Your task to perform on an android device: turn off location Image 0: 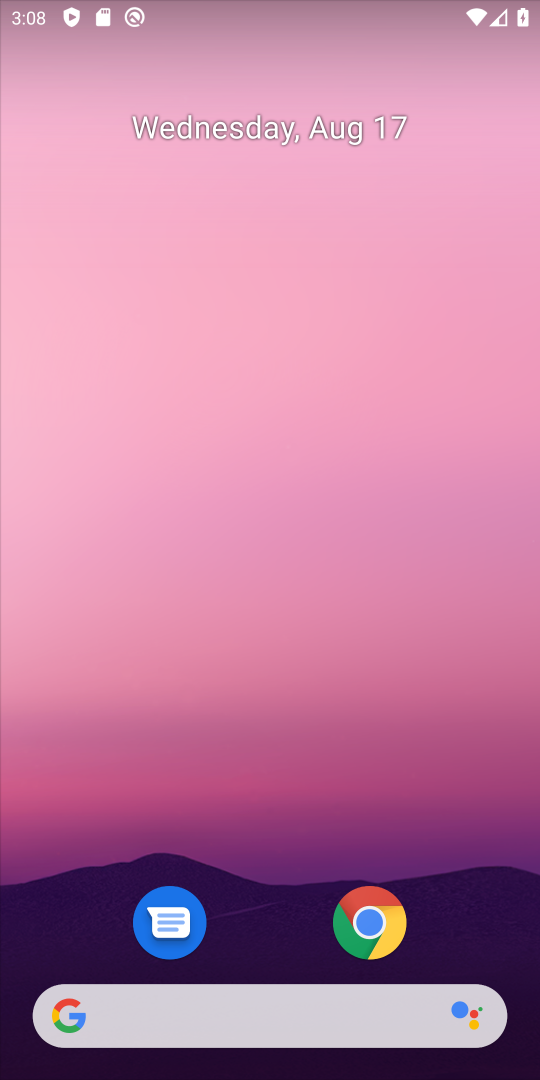
Step 0: drag from (0, 1057) to (340, 178)
Your task to perform on an android device: turn off location Image 1: 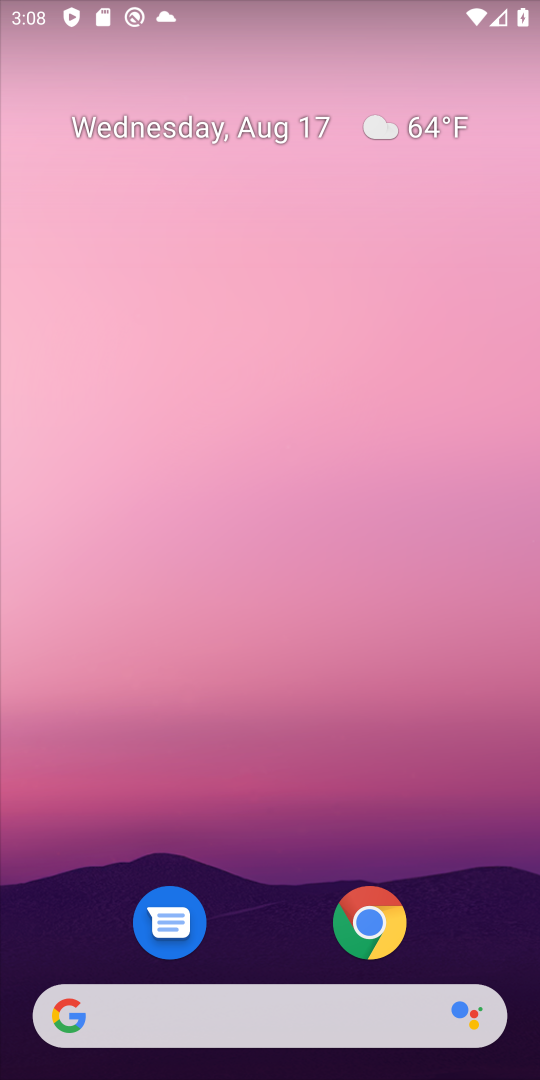
Step 1: drag from (72, 576) to (256, 133)
Your task to perform on an android device: turn off location Image 2: 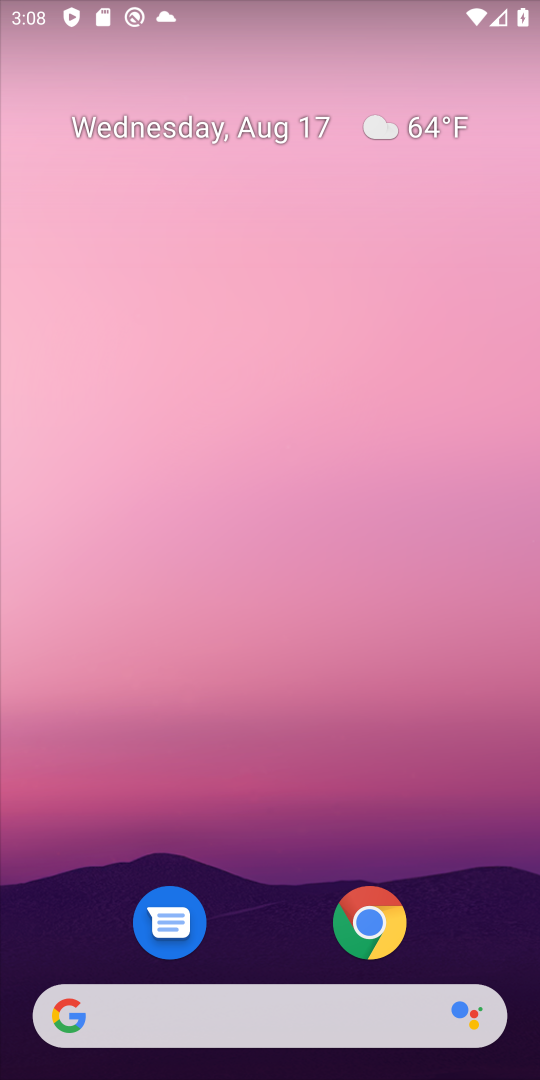
Step 2: drag from (80, 693) to (312, 129)
Your task to perform on an android device: turn off location Image 3: 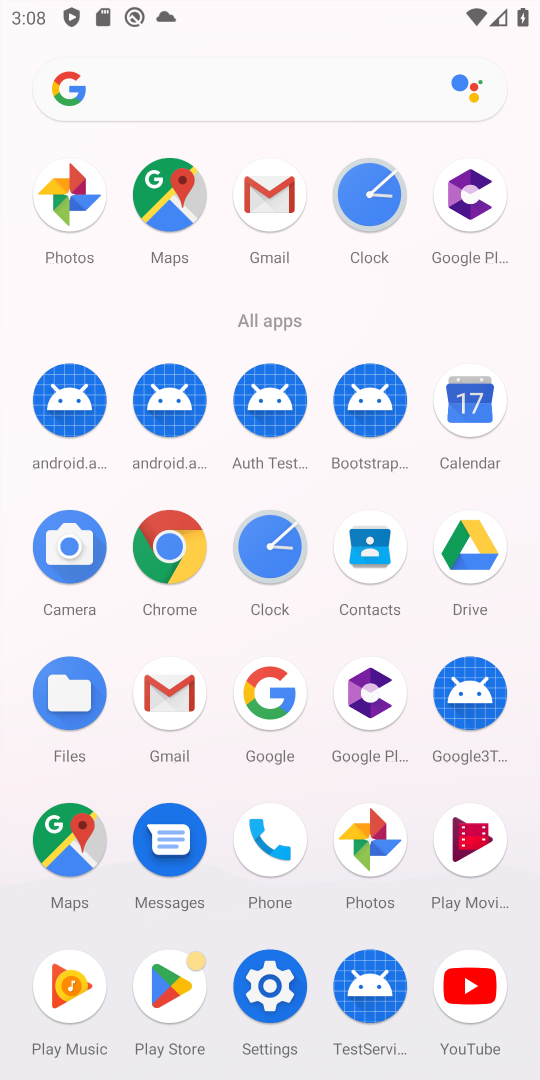
Step 3: click (273, 1017)
Your task to perform on an android device: turn off location Image 4: 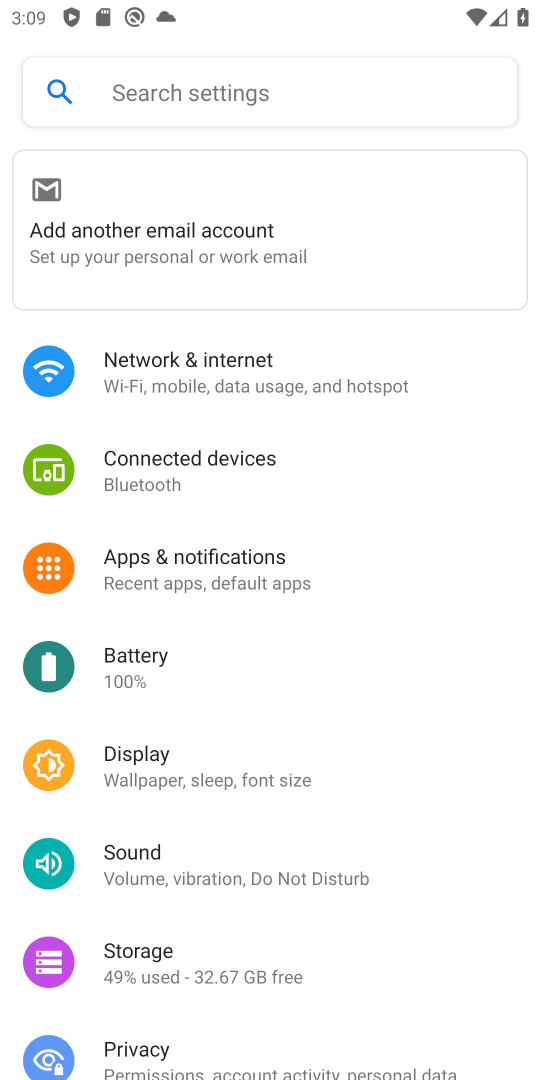
Step 4: drag from (44, 804) to (185, 333)
Your task to perform on an android device: turn off location Image 5: 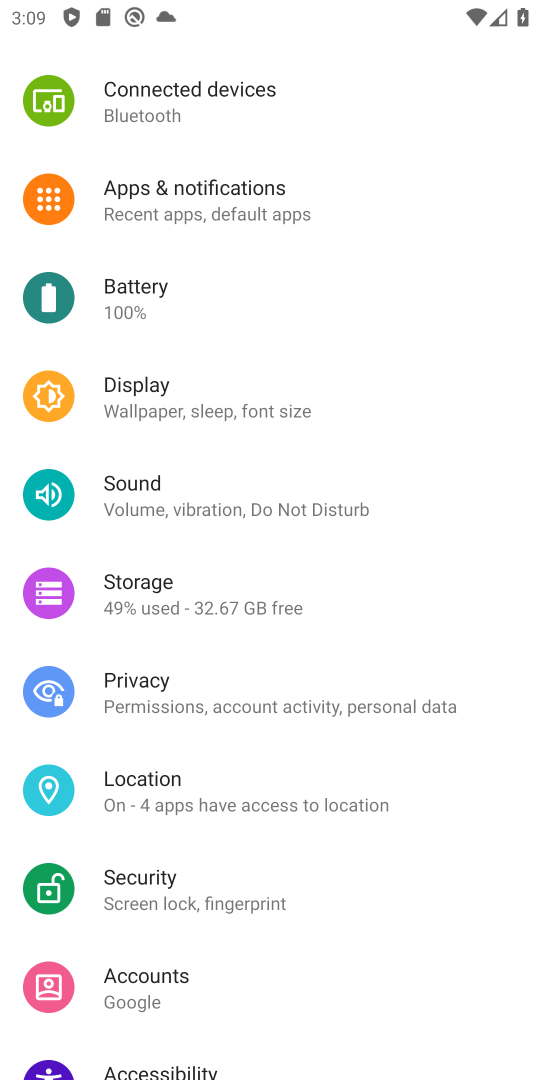
Step 5: click (121, 808)
Your task to perform on an android device: turn off location Image 6: 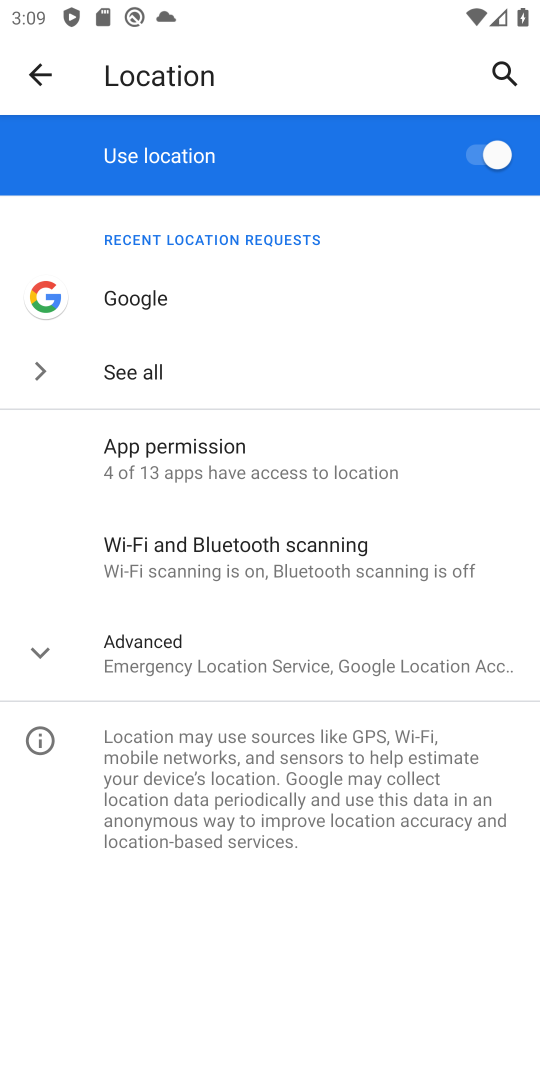
Step 6: click (501, 165)
Your task to perform on an android device: turn off location Image 7: 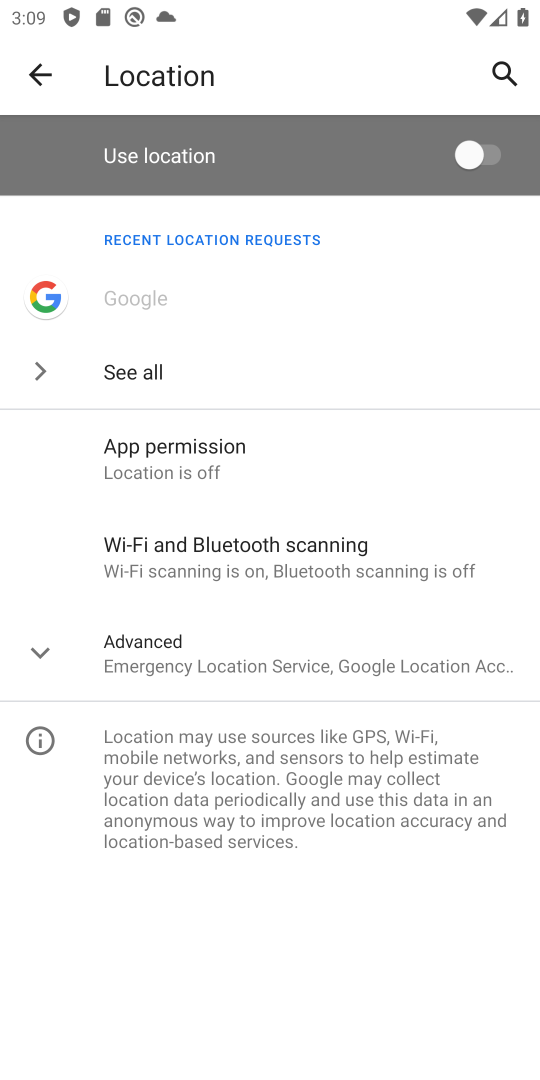
Step 7: task complete